Your task to perform on an android device: See recent photos Image 0: 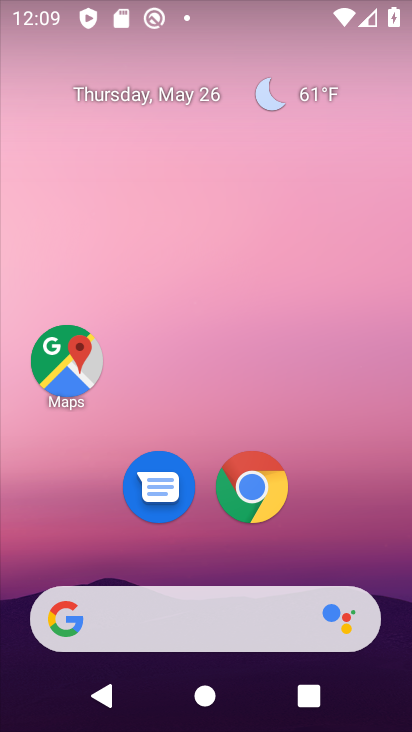
Step 0: drag from (282, 672) to (273, 114)
Your task to perform on an android device: See recent photos Image 1: 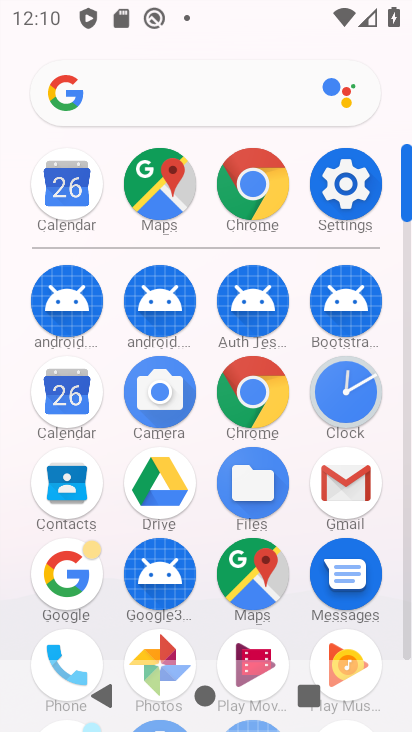
Step 1: click (172, 667)
Your task to perform on an android device: See recent photos Image 2: 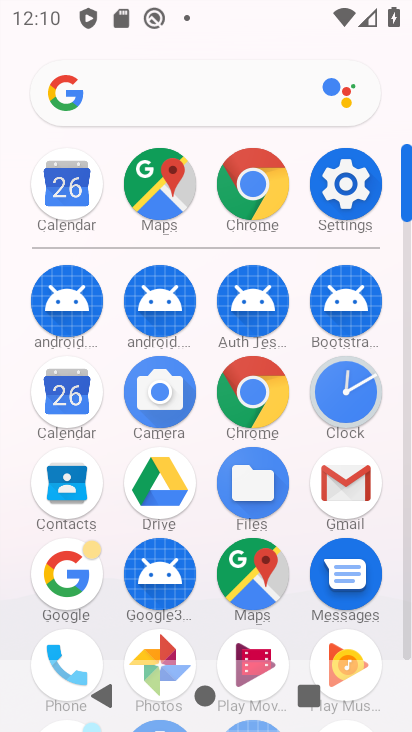
Step 2: click (158, 651)
Your task to perform on an android device: See recent photos Image 3: 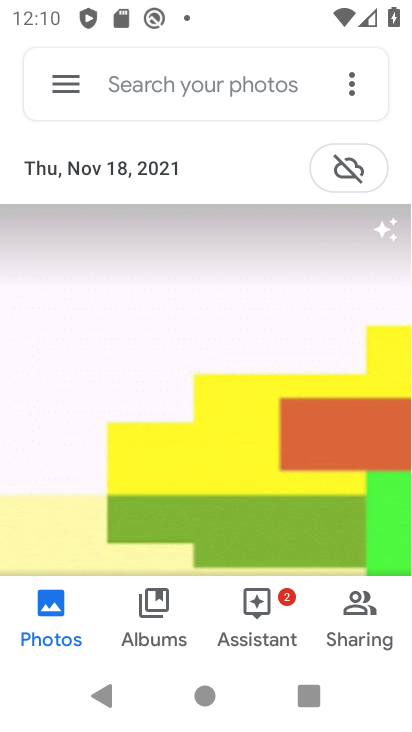
Step 3: press back button
Your task to perform on an android device: See recent photos Image 4: 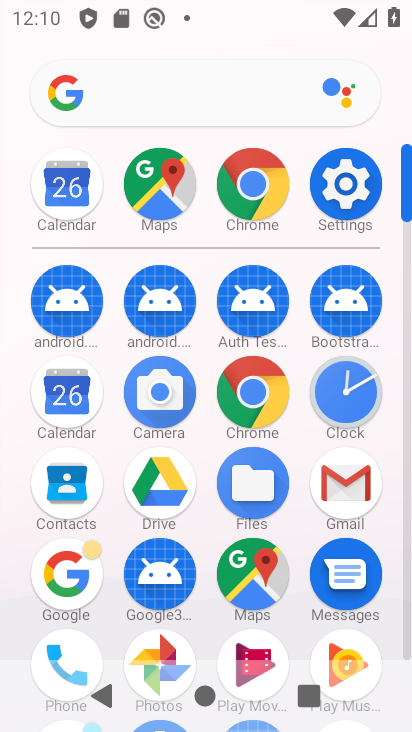
Step 4: click (173, 653)
Your task to perform on an android device: See recent photos Image 5: 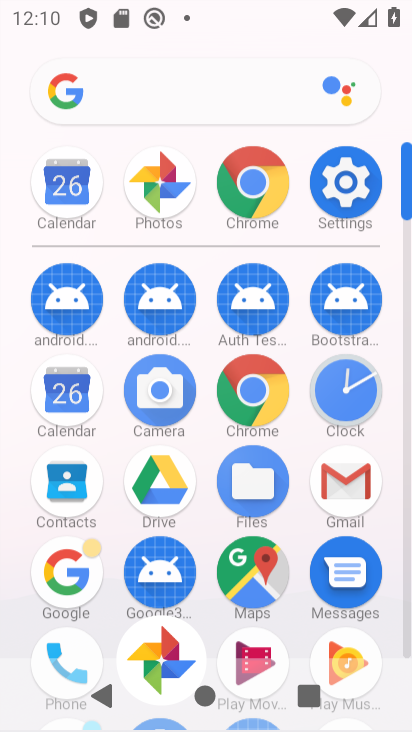
Step 5: click (166, 662)
Your task to perform on an android device: See recent photos Image 6: 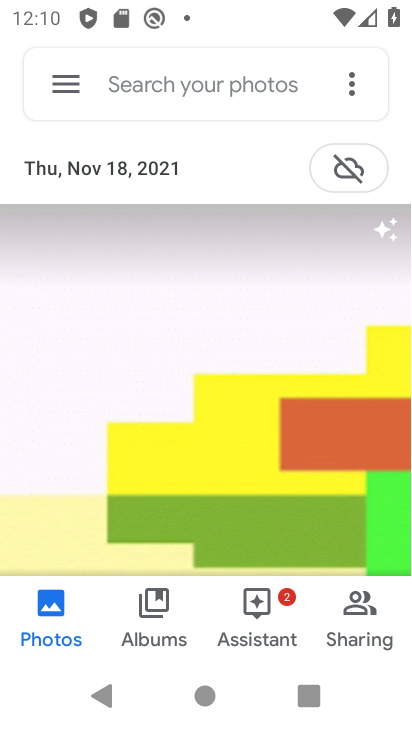
Step 6: task complete